Your task to perform on an android device: See recent photos Image 0: 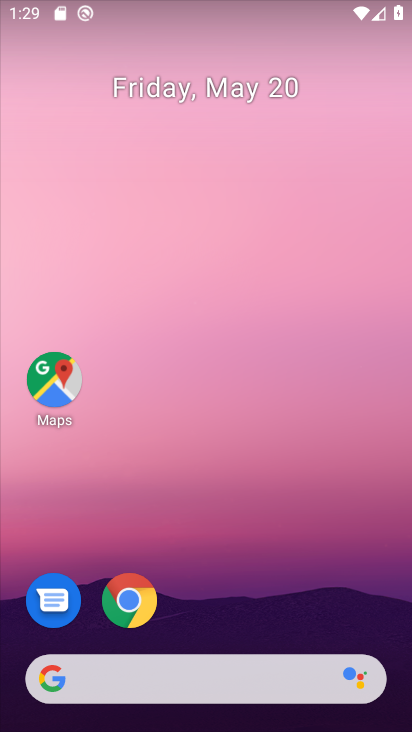
Step 0: drag from (309, 594) to (126, 96)
Your task to perform on an android device: See recent photos Image 1: 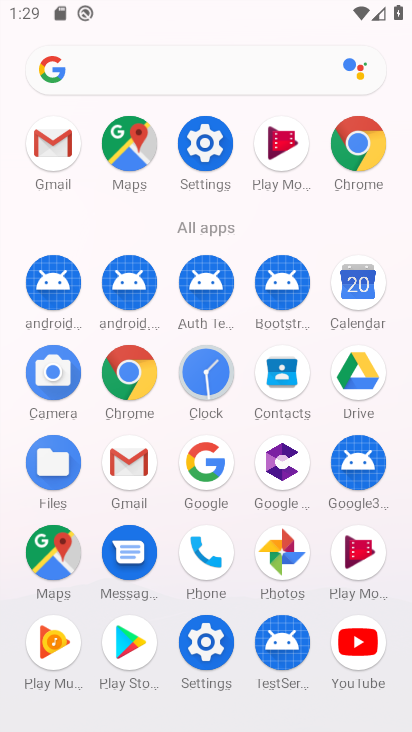
Step 1: click (295, 562)
Your task to perform on an android device: See recent photos Image 2: 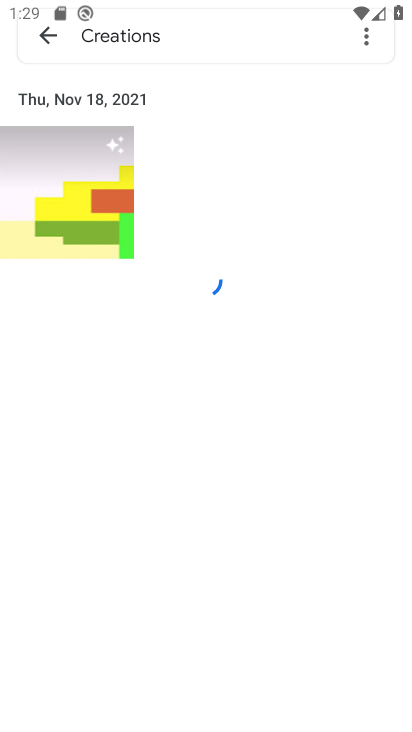
Step 2: click (48, 35)
Your task to perform on an android device: See recent photos Image 3: 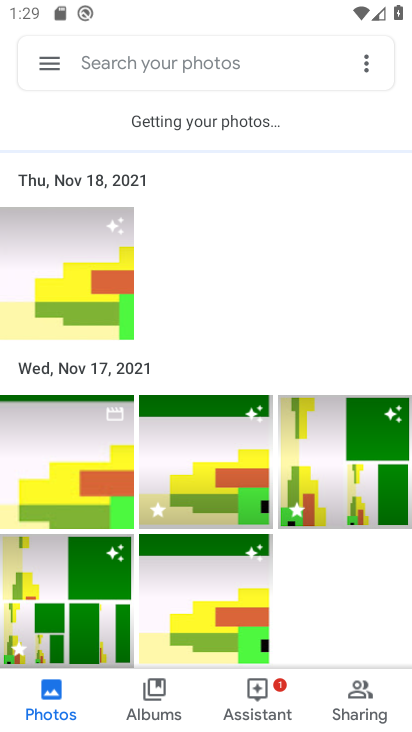
Step 3: click (188, 60)
Your task to perform on an android device: See recent photos Image 4: 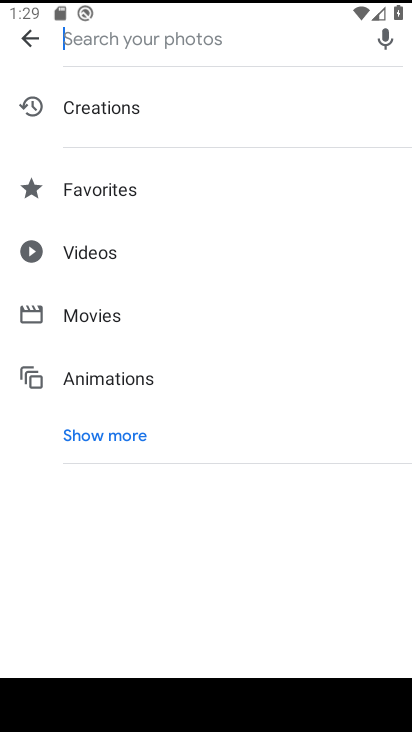
Step 4: type "recent"
Your task to perform on an android device: See recent photos Image 5: 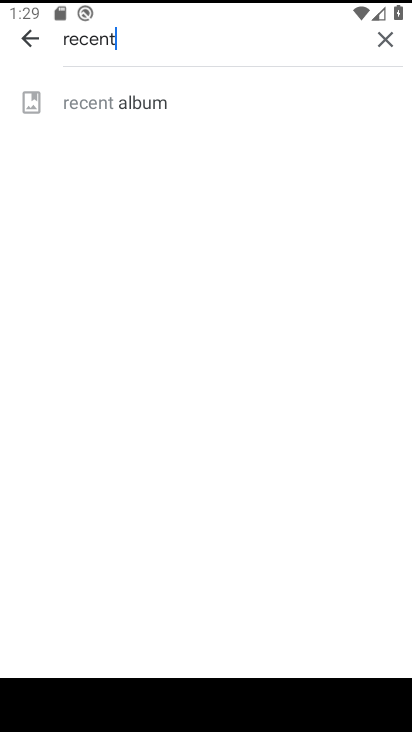
Step 5: click (95, 106)
Your task to perform on an android device: See recent photos Image 6: 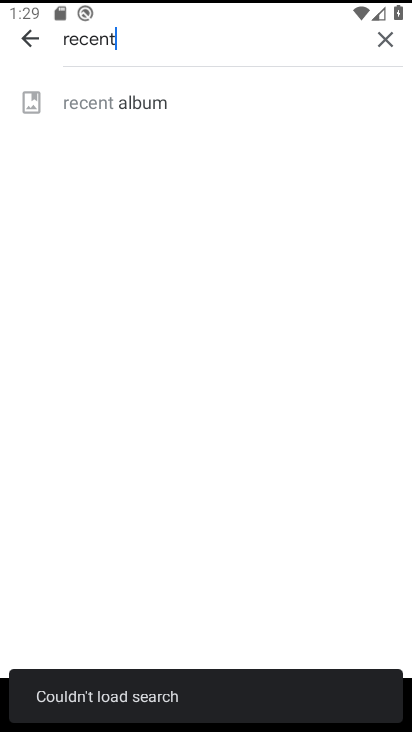
Step 6: click (144, 91)
Your task to perform on an android device: See recent photos Image 7: 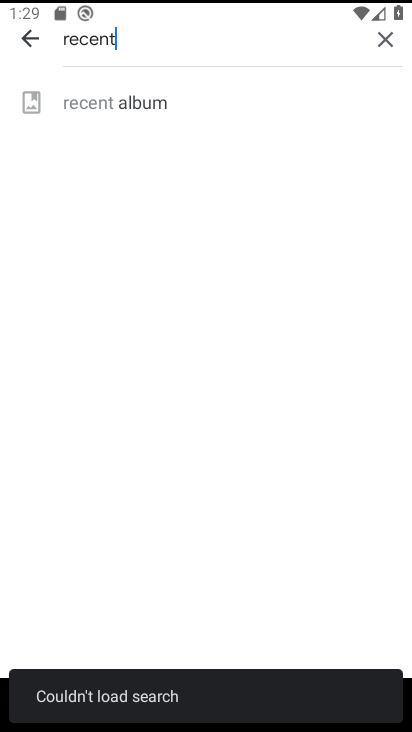
Step 7: task complete